Your task to perform on an android device: toggle show notifications on the lock screen Image 0: 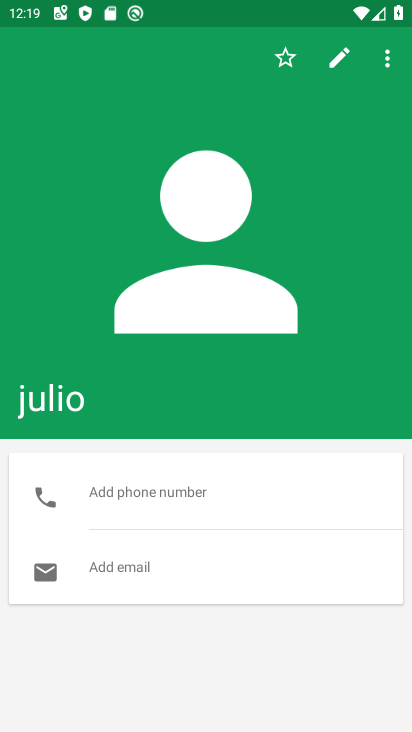
Step 0: press home button
Your task to perform on an android device: toggle show notifications on the lock screen Image 1: 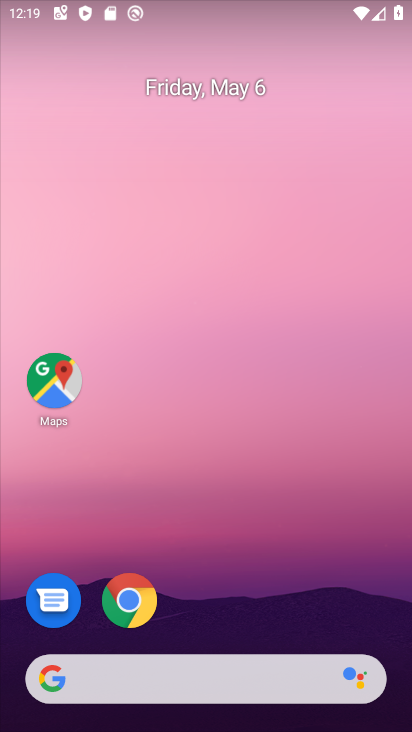
Step 1: drag from (311, 631) to (304, 14)
Your task to perform on an android device: toggle show notifications on the lock screen Image 2: 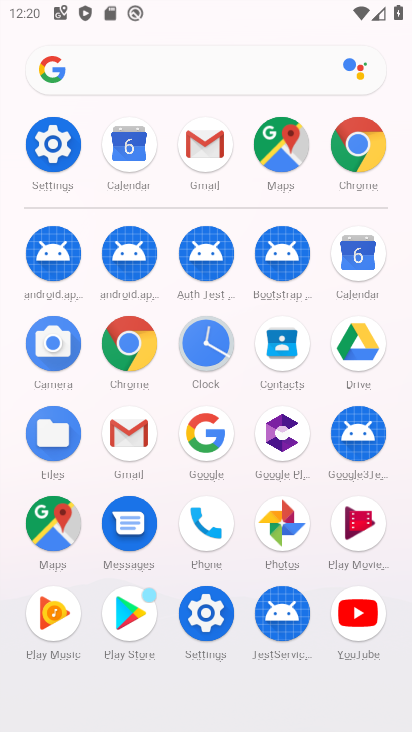
Step 2: click (50, 158)
Your task to perform on an android device: toggle show notifications on the lock screen Image 3: 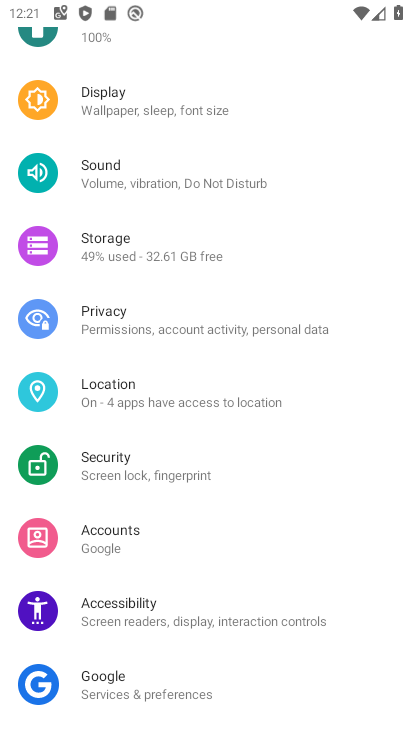
Step 3: drag from (201, 142) to (255, 669)
Your task to perform on an android device: toggle show notifications on the lock screen Image 4: 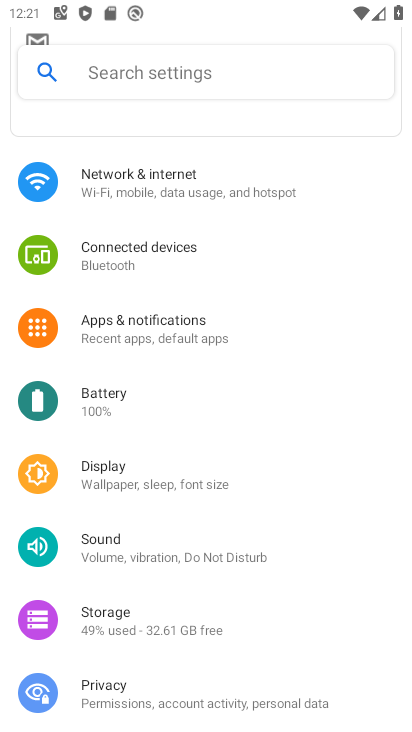
Step 4: click (171, 333)
Your task to perform on an android device: toggle show notifications on the lock screen Image 5: 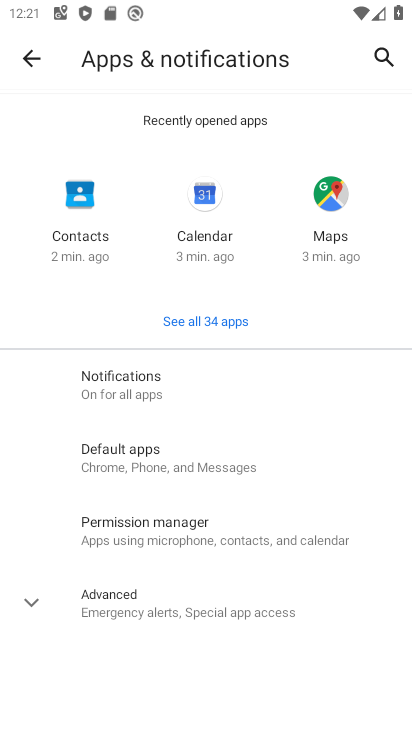
Step 5: click (168, 393)
Your task to perform on an android device: toggle show notifications on the lock screen Image 6: 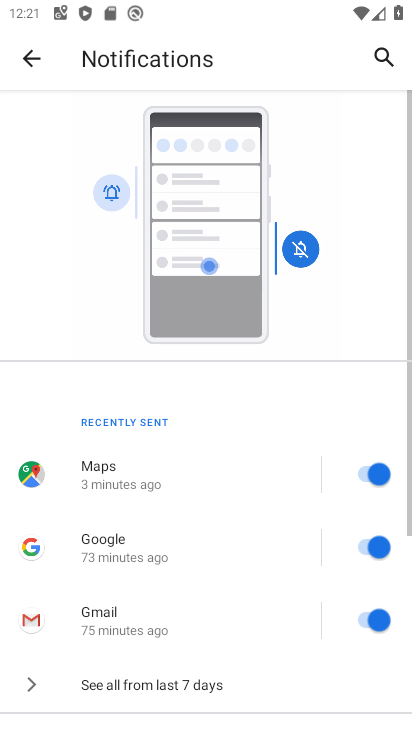
Step 6: drag from (135, 682) to (252, 124)
Your task to perform on an android device: toggle show notifications on the lock screen Image 7: 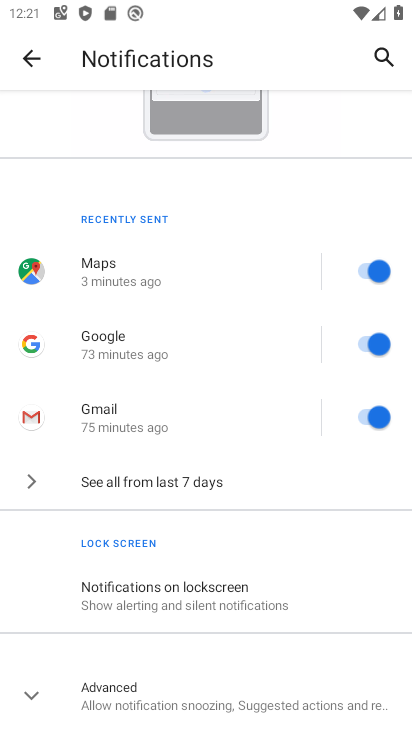
Step 7: click (210, 591)
Your task to perform on an android device: toggle show notifications on the lock screen Image 8: 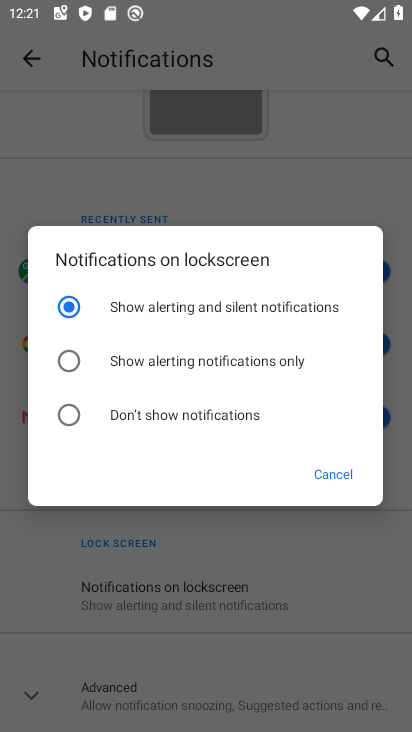
Step 8: click (164, 423)
Your task to perform on an android device: toggle show notifications on the lock screen Image 9: 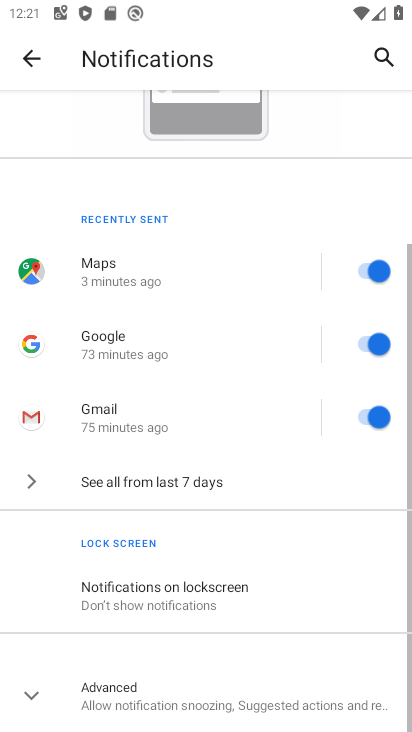
Step 9: task complete